Your task to perform on an android device: Open Chrome and go to the settings page Image 0: 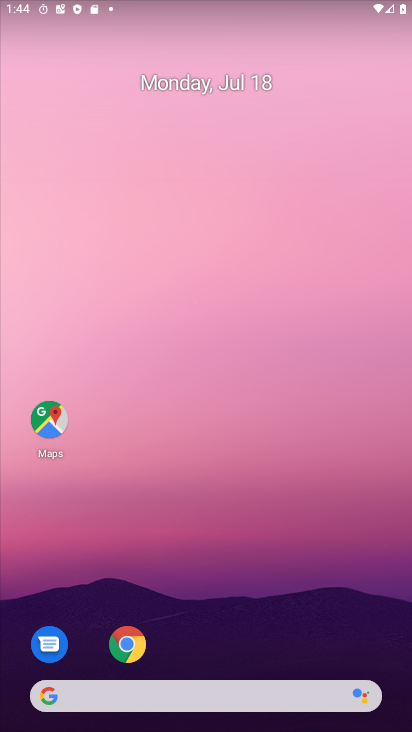
Step 0: click (126, 632)
Your task to perform on an android device: Open Chrome and go to the settings page Image 1: 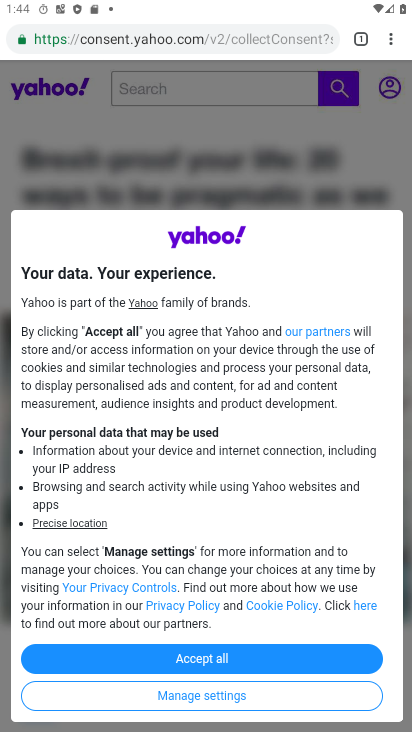
Step 1: click (386, 34)
Your task to perform on an android device: Open Chrome and go to the settings page Image 2: 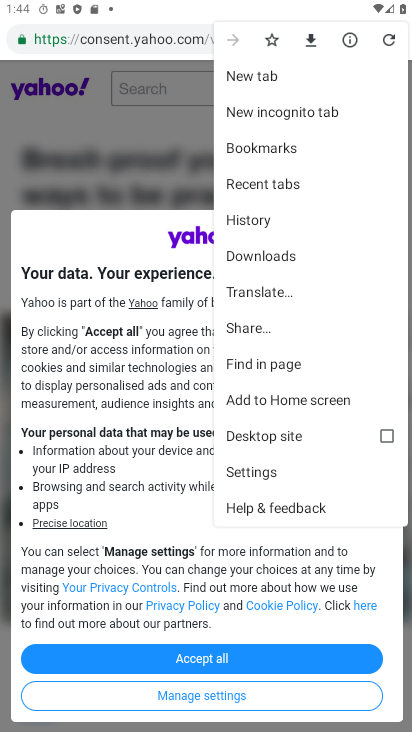
Step 2: click (285, 466)
Your task to perform on an android device: Open Chrome and go to the settings page Image 3: 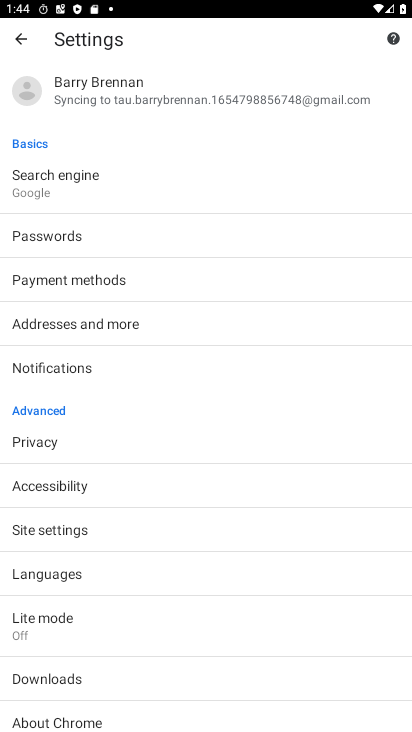
Step 3: task complete